Your task to perform on an android device: find snoozed emails in the gmail app Image 0: 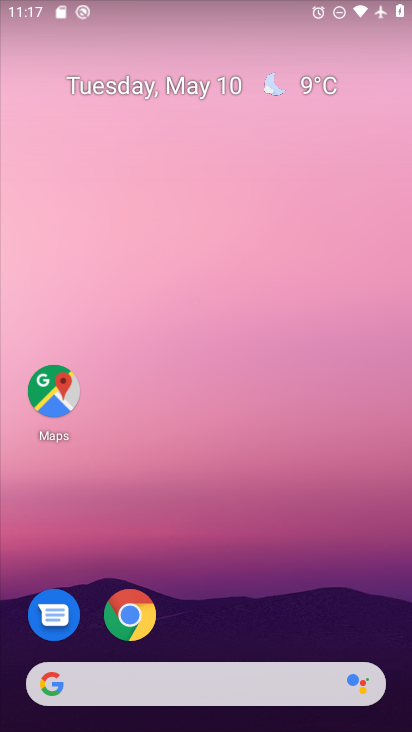
Step 0: drag from (382, 644) to (298, 56)
Your task to perform on an android device: find snoozed emails in the gmail app Image 1: 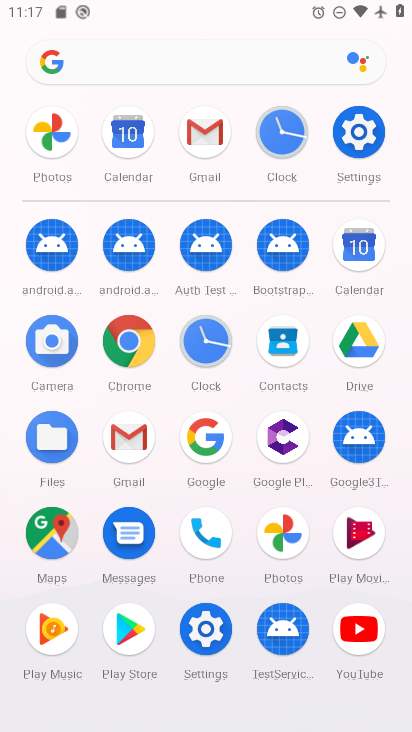
Step 1: click (127, 440)
Your task to perform on an android device: find snoozed emails in the gmail app Image 2: 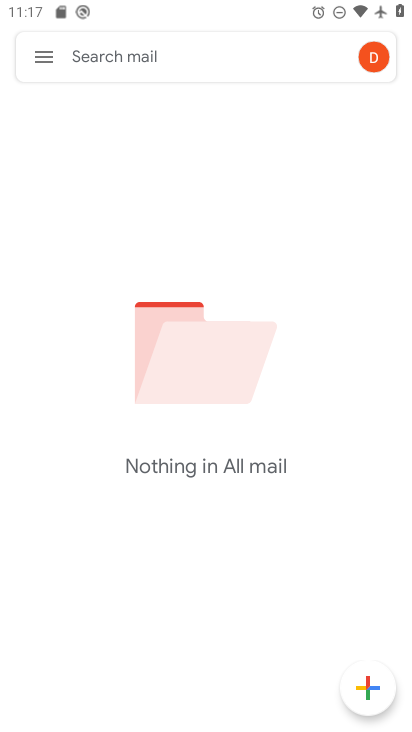
Step 2: click (44, 57)
Your task to perform on an android device: find snoozed emails in the gmail app Image 3: 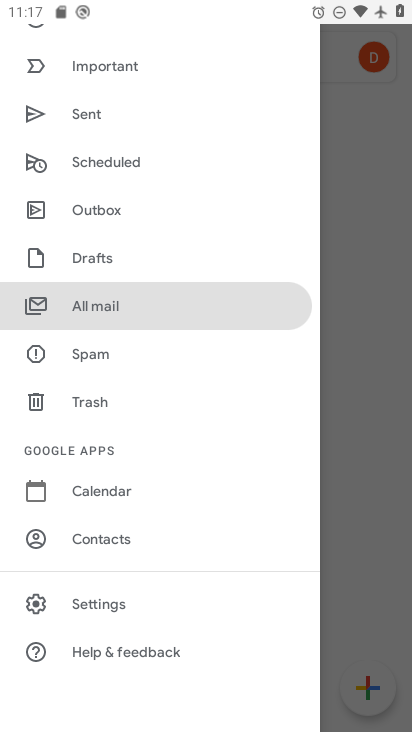
Step 3: drag from (224, 180) to (191, 524)
Your task to perform on an android device: find snoozed emails in the gmail app Image 4: 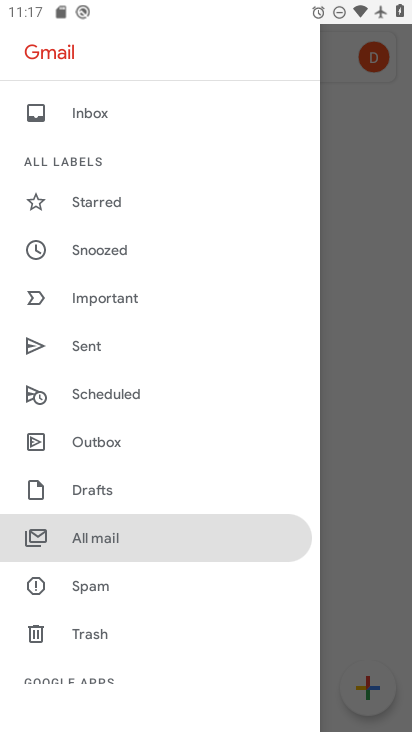
Step 4: click (91, 245)
Your task to perform on an android device: find snoozed emails in the gmail app Image 5: 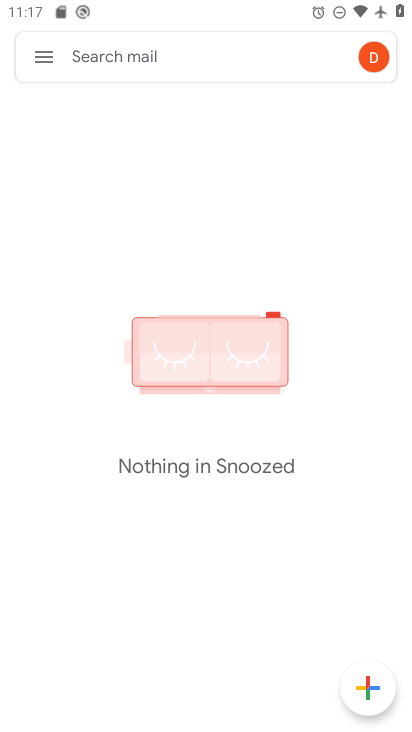
Step 5: task complete